Your task to perform on an android device: remove spam from my inbox in the gmail app Image 0: 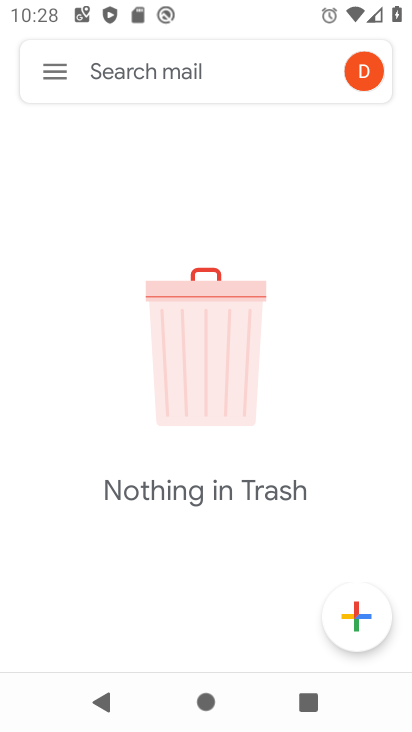
Step 0: press home button
Your task to perform on an android device: remove spam from my inbox in the gmail app Image 1: 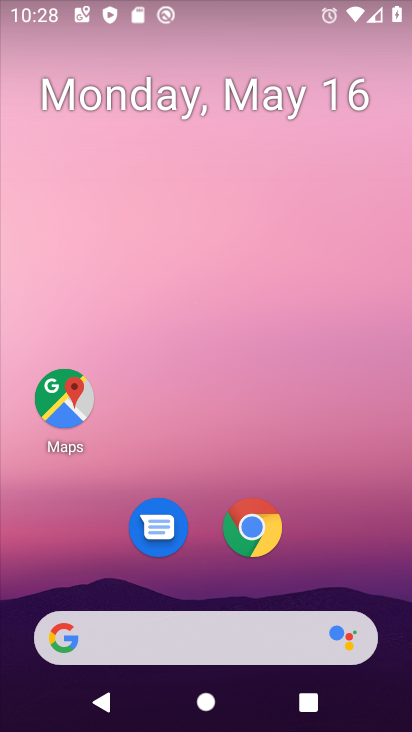
Step 1: drag from (358, 588) to (227, 3)
Your task to perform on an android device: remove spam from my inbox in the gmail app Image 2: 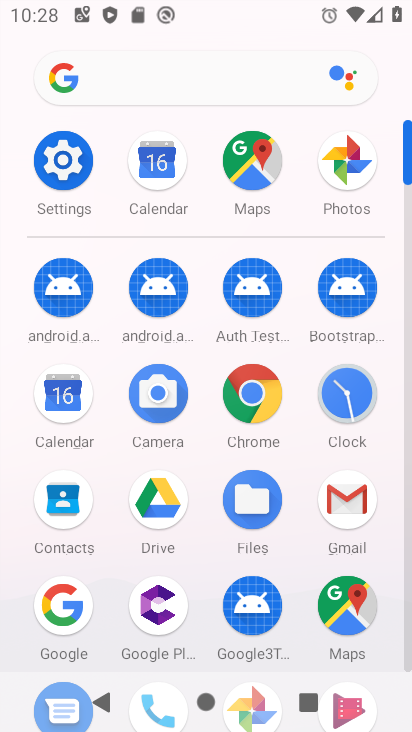
Step 2: click (351, 488)
Your task to perform on an android device: remove spam from my inbox in the gmail app Image 3: 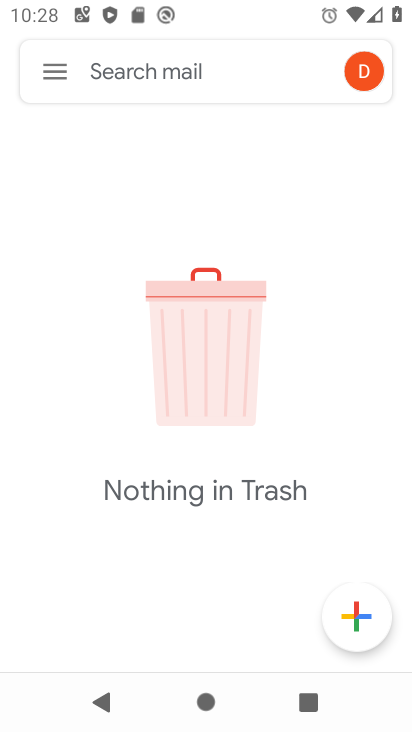
Step 3: click (49, 65)
Your task to perform on an android device: remove spam from my inbox in the gmail app Image 4: 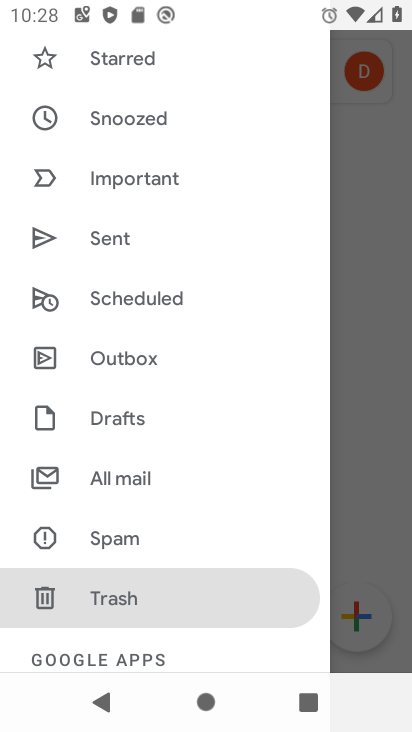
Step 4: click (108, 538)
Your task to perform on an android device: remove spam from my inbox in the gmail app Image 5: 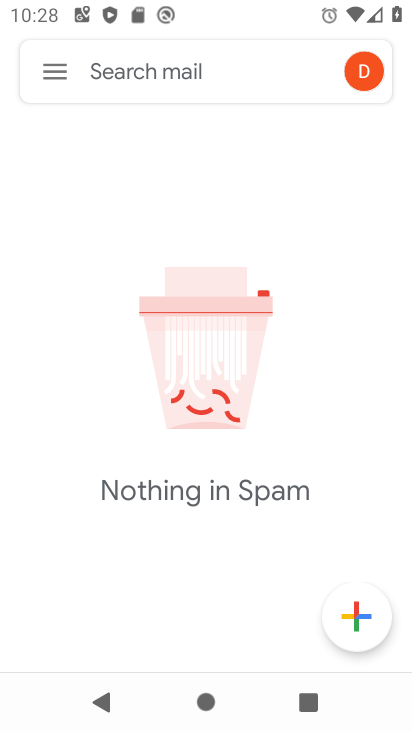
Step 5: task complete